Your task to perform on an android device: Go to internet settings Image 0: 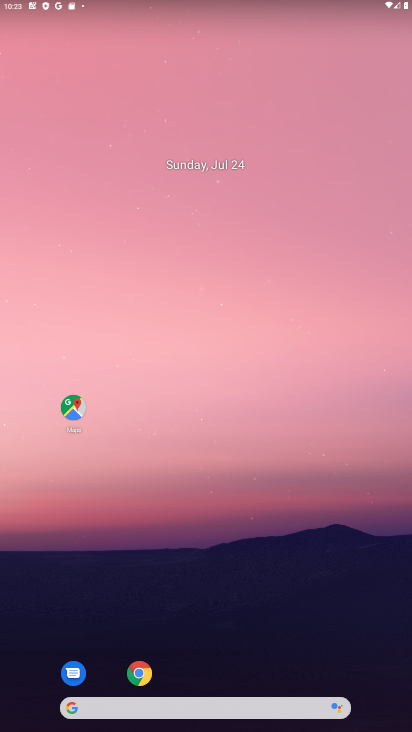
Step 0: drag from (57, 597) to (321, 2)
Your task to perform on an android device: Go to internet settings Image 1: 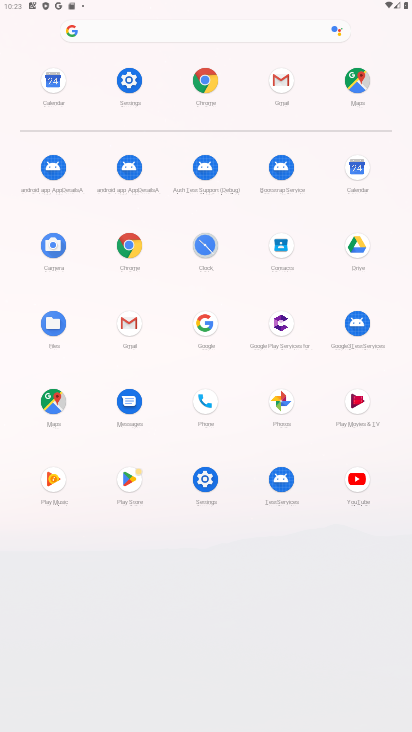
Step 1: click (207, 490)
Your task to perform on an android device: Go to internet settings Image 2: 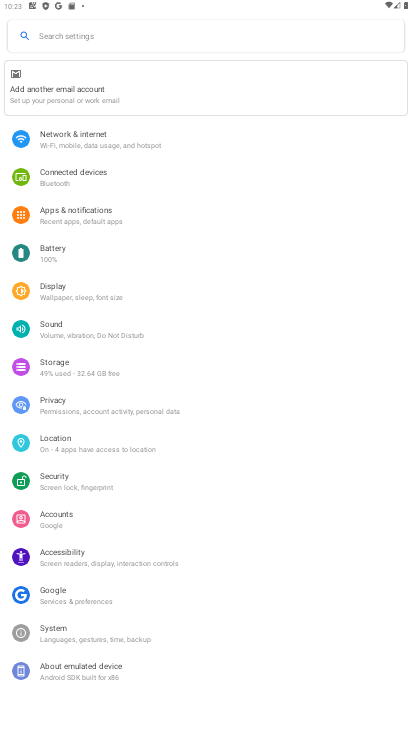
Step 2: click (96, 131)
Your task to perform on an android device: Go to internet settings Image 3: 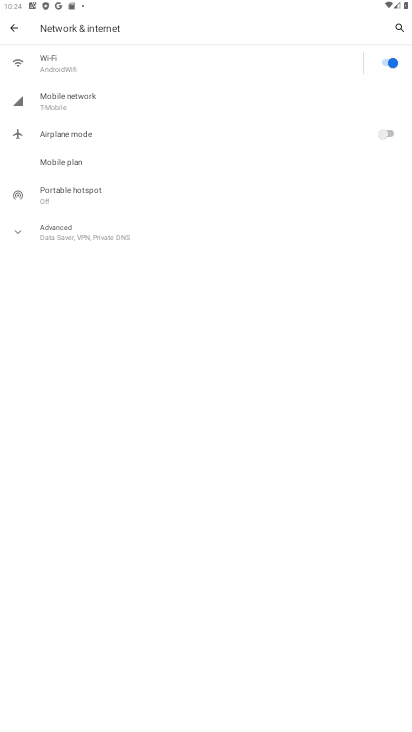
Step 3: task complete